Your task to perform on an android device: toggle location history Image 0: 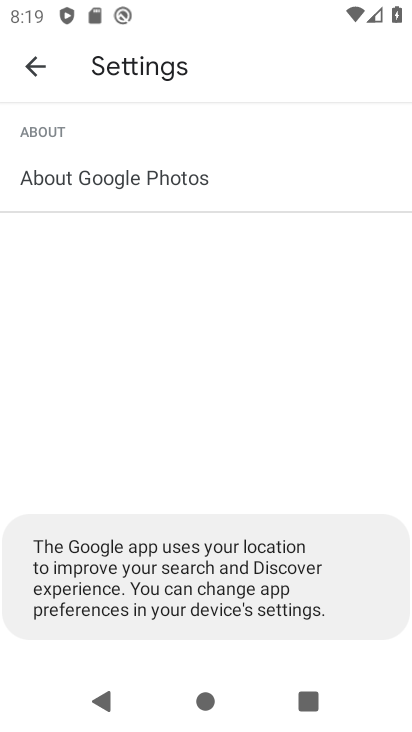
Step 0: press home button
Your task to perform on an android device: toggle location history Image 1: 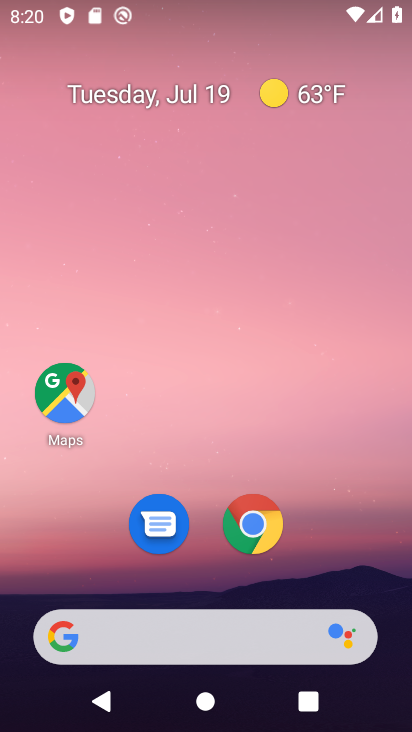
Step 1: click (64, 405)
Your task to perform on an android device: toggle location history Image 2: 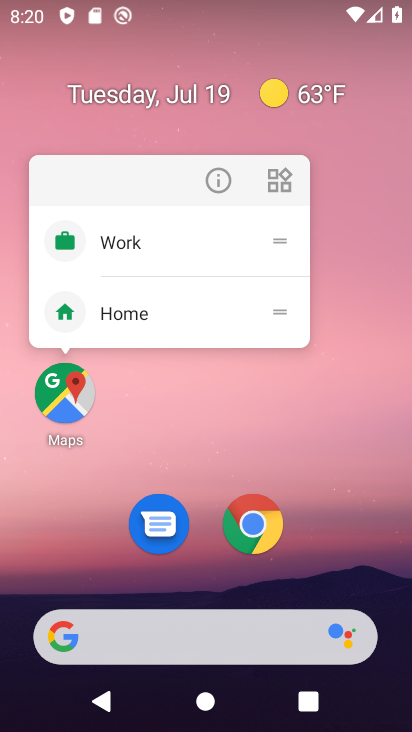
Step 2: click (68, 401)
Your task to perform on an android device: toggle location history Image 3: 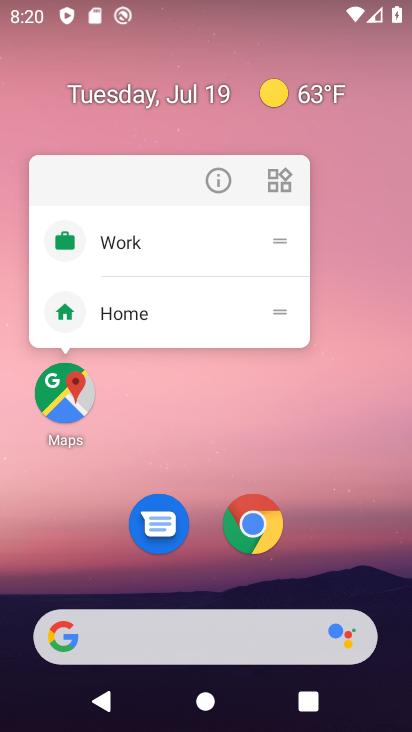
Step 3: click (68, 402)
Your task to perform on an android device: toggle location history Image 4: 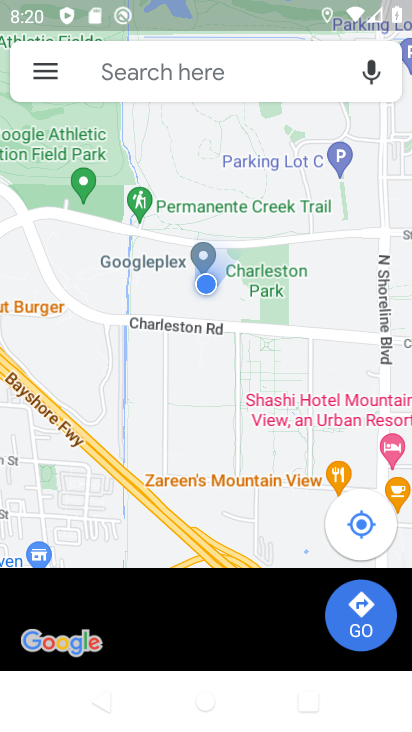
Step 4: click (42, 61)
Your task to perform on an android device: toggle location history Image 5: 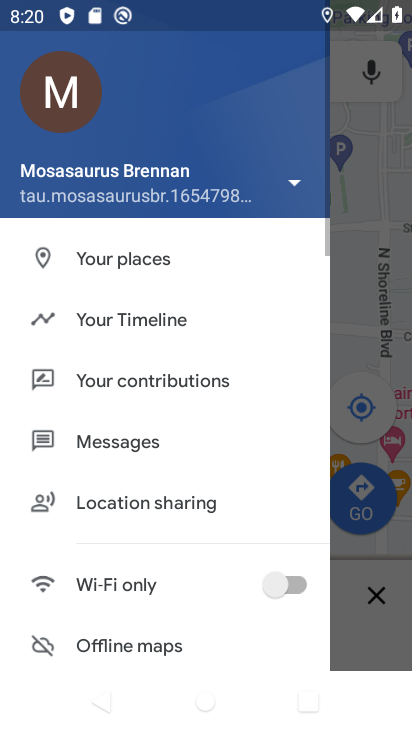
Step 5: click (152, 313)
Your task to perform on an android device: toggle location history Image 6: 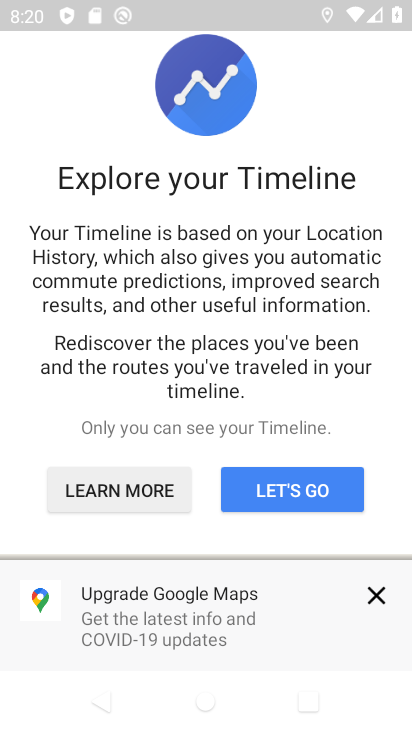
Step 6: click (373, 587)
Your task to perform on an android device: toggle location history Image 7: 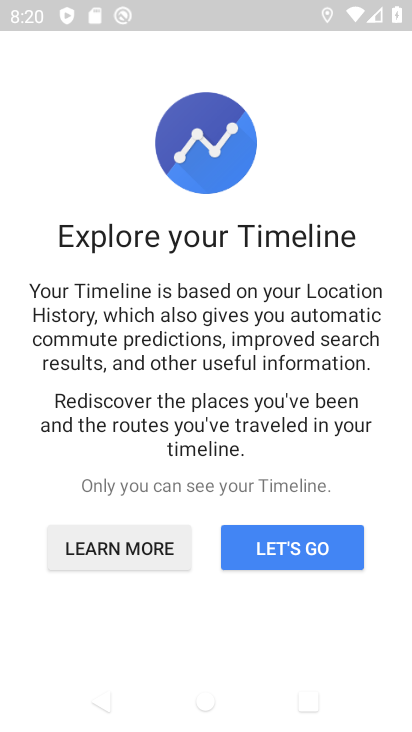
Step 7: click (297, 546)
Your task to perform on an android device: toggle location history Image 8: 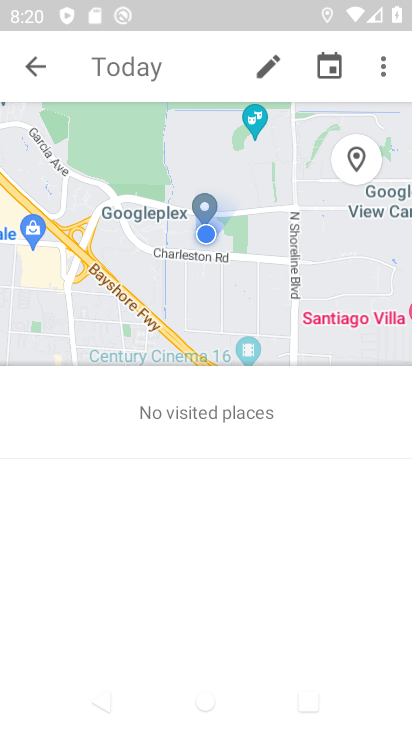
Step 8: click (385, 62)
Your task to perform on an android device: toggle location history Image 9: 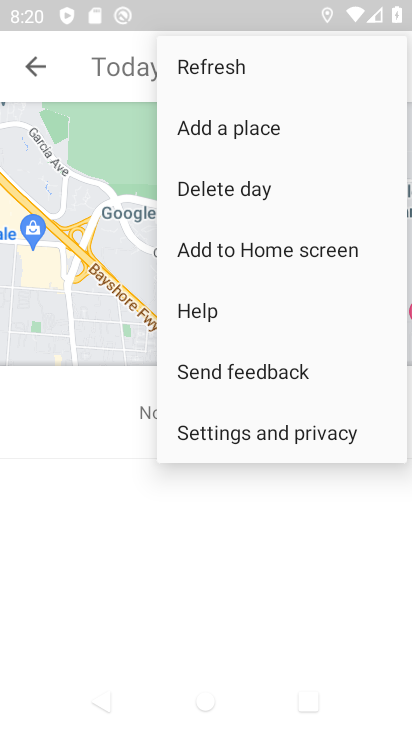
Step 9: click (257, 429)
Your task to perform on an android device: toggle location history Image 10: 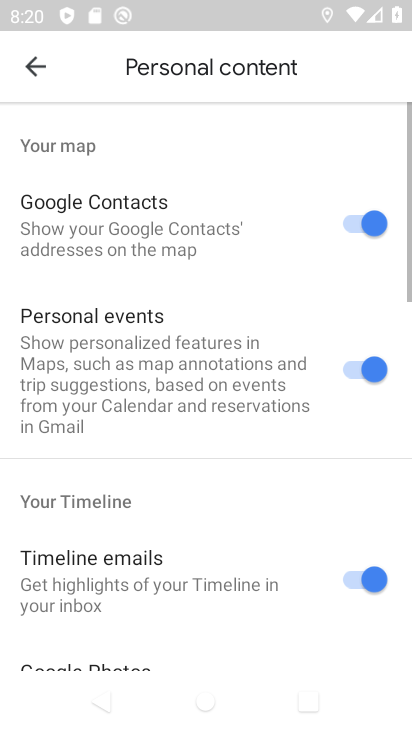
Step 10: drag from (208, 533) to (389, 0)
Your task to perform on an android device: toggle location history Image 11: 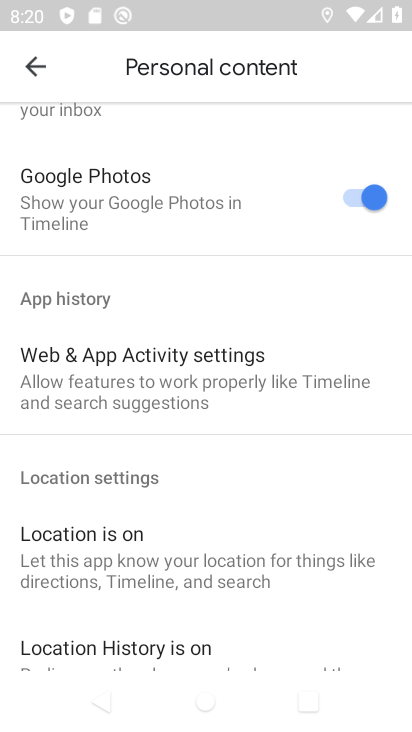
Step 11: drag from (215, 487) to (293, 171)
Your task to perform on an android device: toggle location history Image 12: 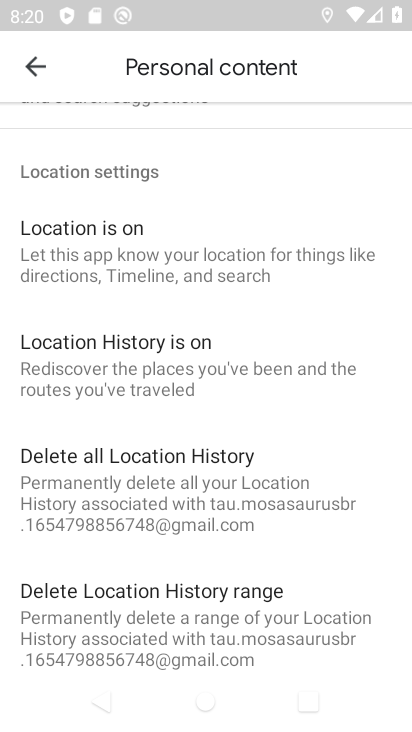
Step 12: click (148, 348)
Your task to perform on an android device: toggle location history Image 13: 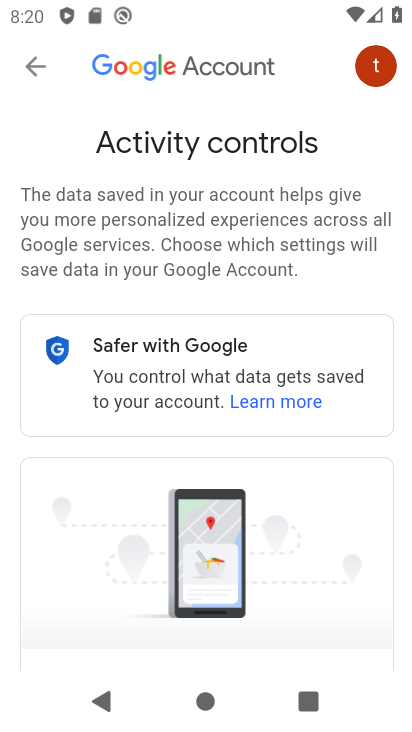
Step 13: drag from (315, 584) to (401, 114)
Your task to perform on an android device: toggle location history Image 14: 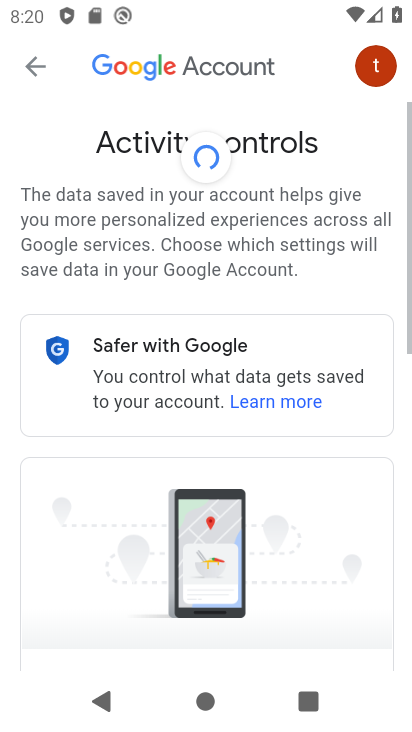
Step 14: click (313, 443)
Your task to perform on an android device: toggle location history Image 15: 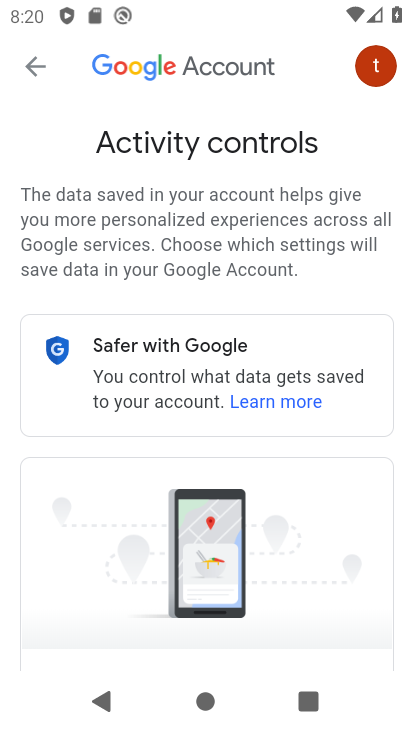
Step 15: drag from (317, 588) to (374, 70)
Your task to perform on an android device: toggle location history Image 16: 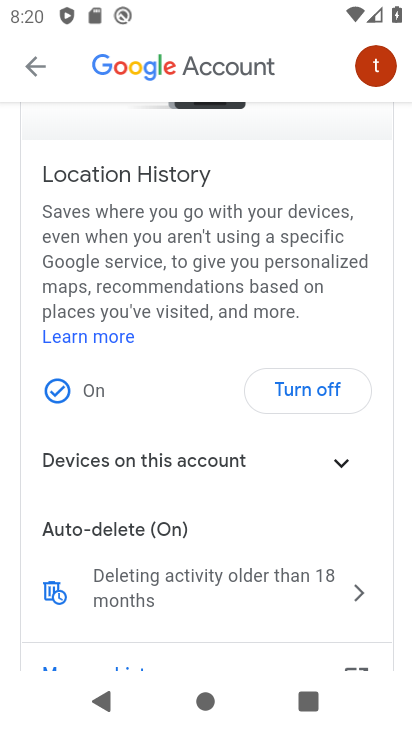
Step 16: click (311, 395)
Your task to perform on an android device: toggle location history Image 17: 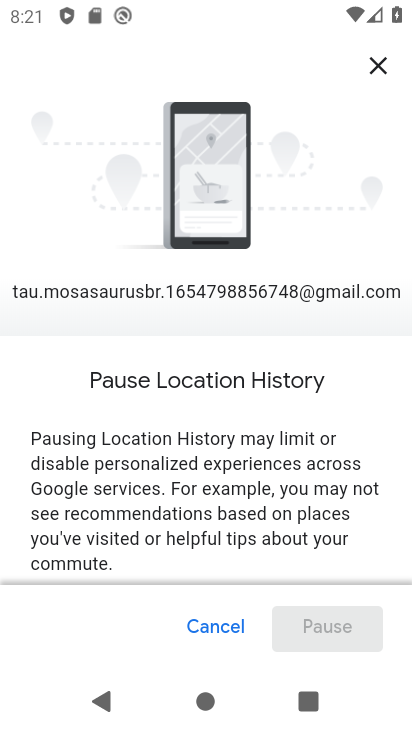
Step 17: drag from (275, 508) to (393, 64)
Your task to perform on an android device: toggle location history Image 18: 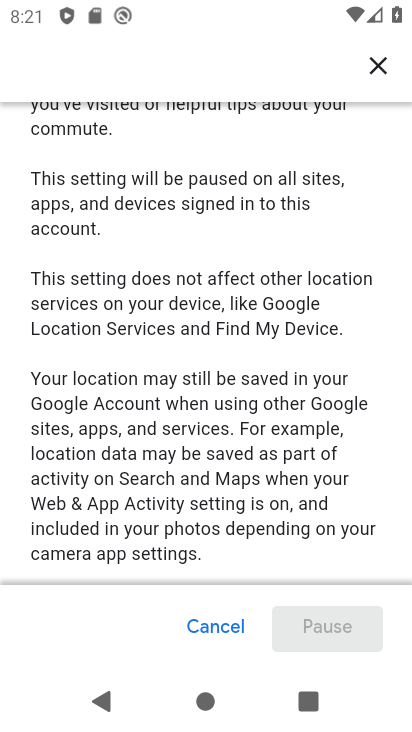
Step 18: drag from (311, 503) to (350, 48)
Your task to perform on an android device: toggle location history Image 19: 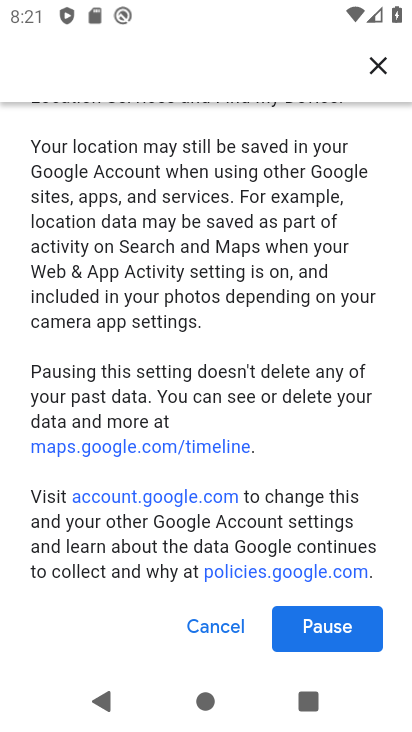
Step 19: click (331, 628)
Your task to perform on an android device: toggle location history Image 20: 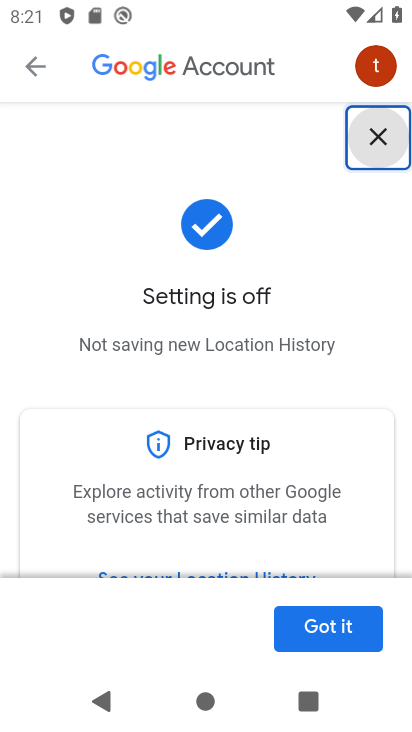
Step 20: click (331, 629)
Your task to perform on an android device: toggle location history Image 21: 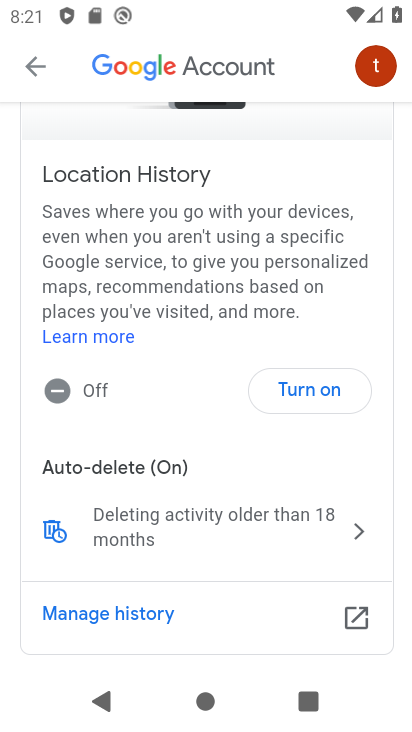
Step 21: task complete